Your task to perform on an android device: Go to privacy settings Image 0: 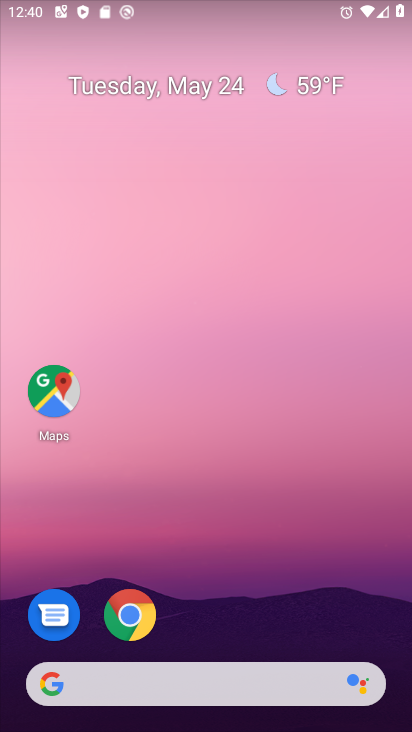
Step 0: drag from (246, 577) to (235, 12)
Your task to perform on an android device: Go to privacy settings Image 1: 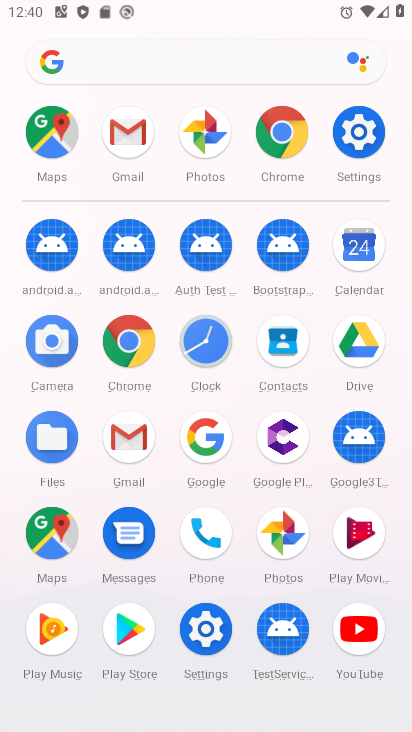
Step 1: drag from (14, 593) to (8, 186)
Your task to perform on an android device: Go to privacy settings Image 2: 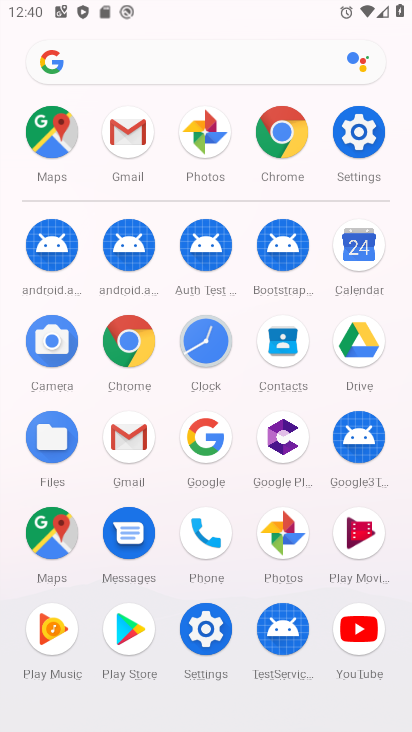
Step 2: click (123, 335)
Your task to perform on an android device: Go to privacy settings Image 3: 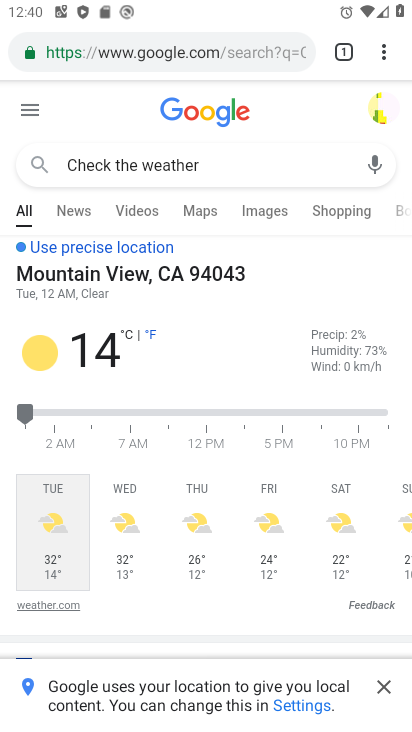
Step 3: drag from (386, 55) to (226, 580)
Your task to perform on an android device: Go to privacy settings Image 4: 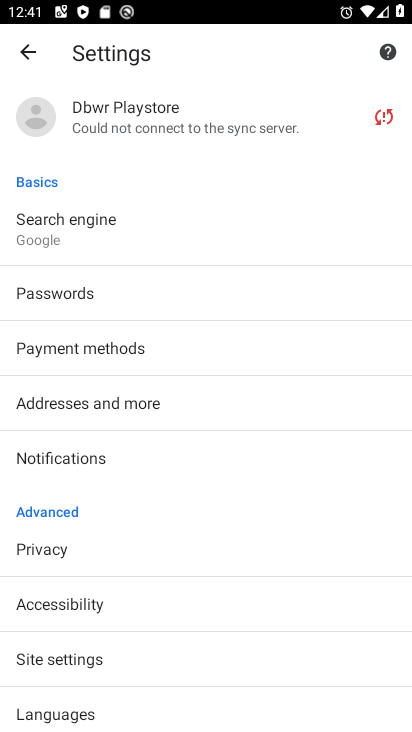
Step 4: drag from (211, 549) to (267, 150)
Your task to perform on an android device: Go to privacy settings Image 5: 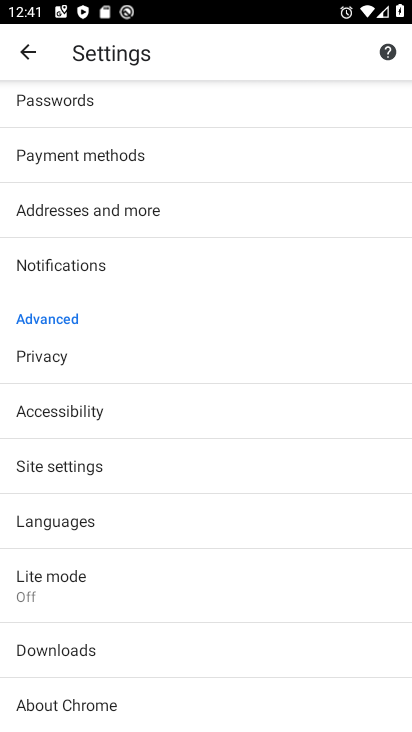
Step 5: click (85, 339)
Your task to perform on an android device: Go to privacy settings Image 6: 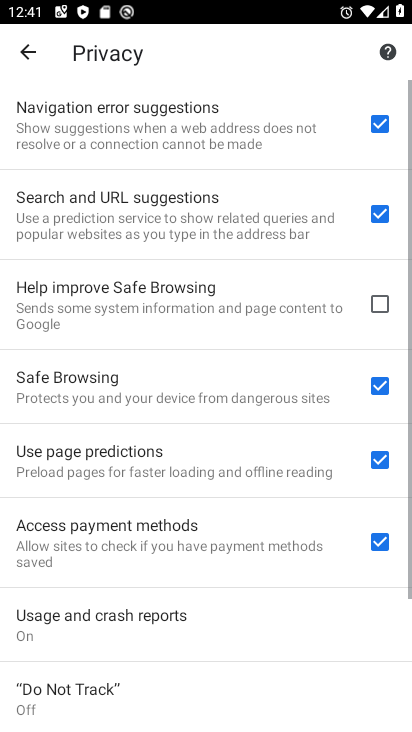
Step 6: task complete